Your task to perform on an android device: choose inbox layout in the gmail app Image 0: 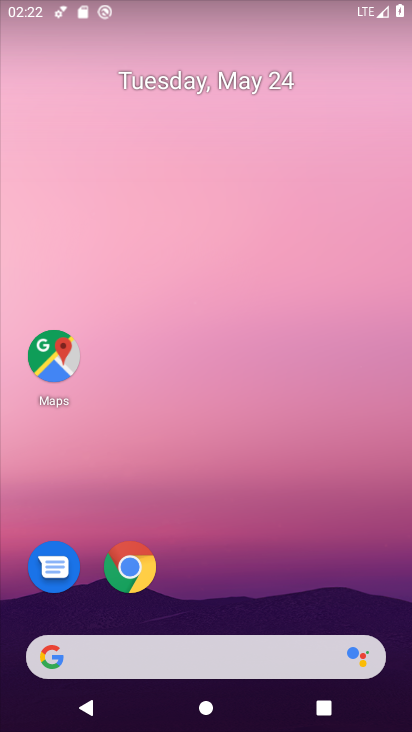
Step 0: drag from (212, 625) to (224, 10)
Your task to perform on an android device: choose inbox layout in the gmail app Image 1: 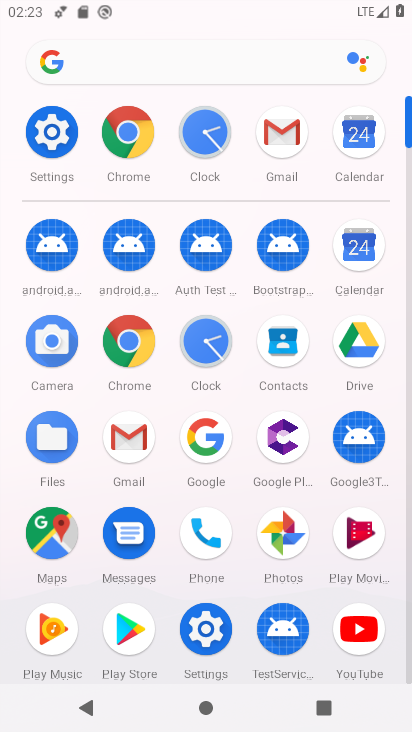
Step 1: click (136, 449)
Your task to perform on an android device: choose inbox layout in the gmail app Image 2: 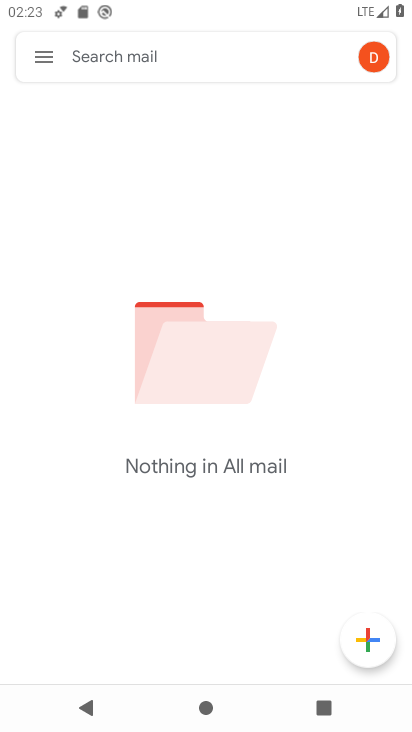
Step 2: click (41, 58)
Your task to perform on an android device: choose inbox layout in the gmail app Image 3: 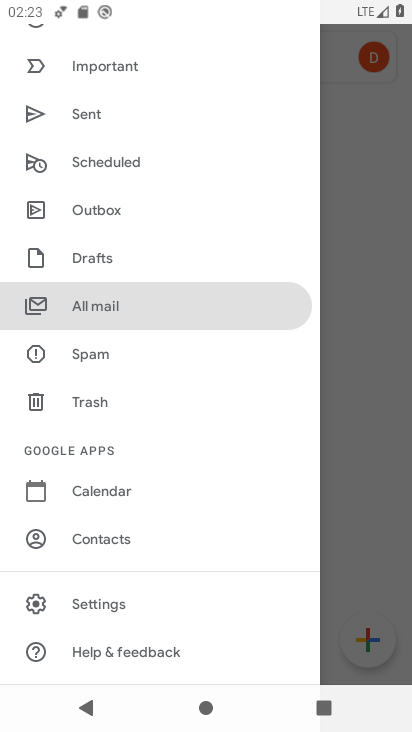
Step 3: click (71, 603)
Your task to perform on an android device: choose inbox layout in the gmail app Image 4: 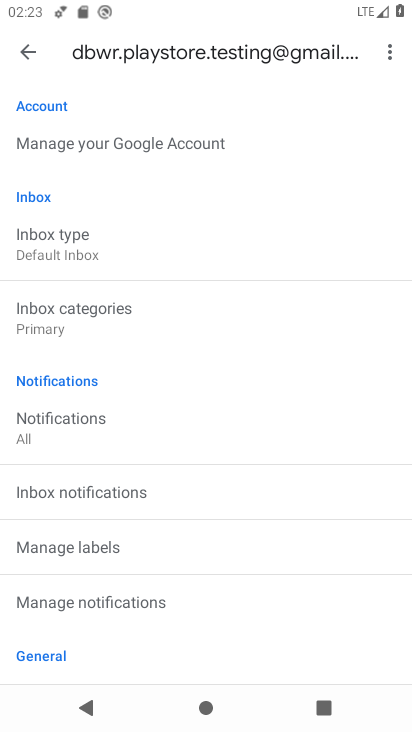
Step 4: click (67, 246)
Your task to perform on an android device: choose inbox layout in the gmail app Image 5: 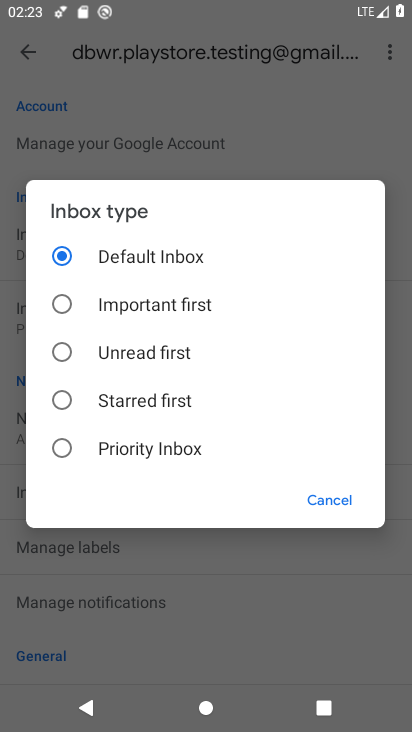
Step 5: click (56, 393)
Your task to perform on an android device: choose inbox layout in the gmail app Image 6: 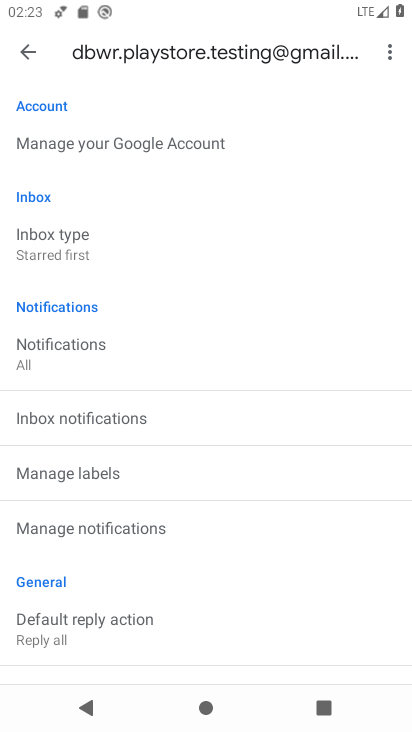
Step 6: task complete